Your task to perform on an android device: Open Chrome and go to the settings page Image 0: 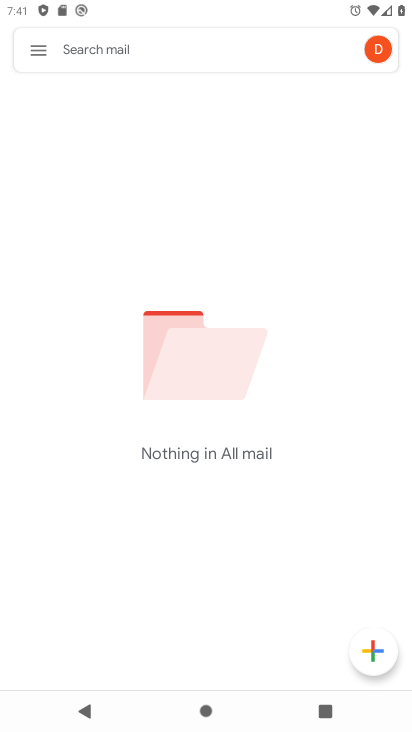
Step 0: press home button
Your task to perform on an android device: Open Chrome and go to the settings page Image 1: 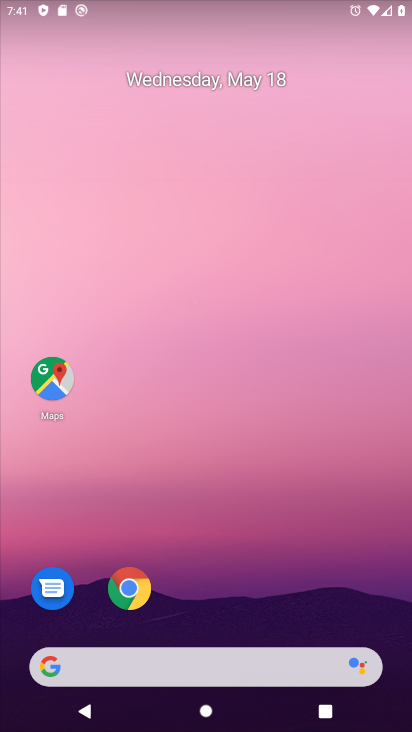
Step 1: click (132, 584)
Your task to perform on an android device: Open Chrome and go to the settings page Image 2: 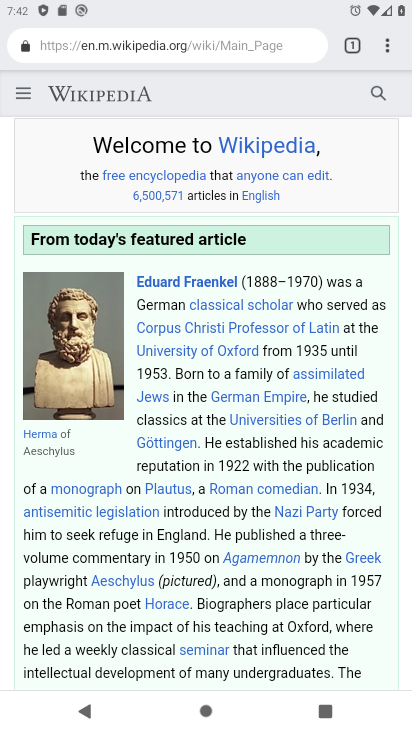
Step 2: click (387, 42)
Your task to perform on an android device: Open Chrome and go to the settings page Image 3: 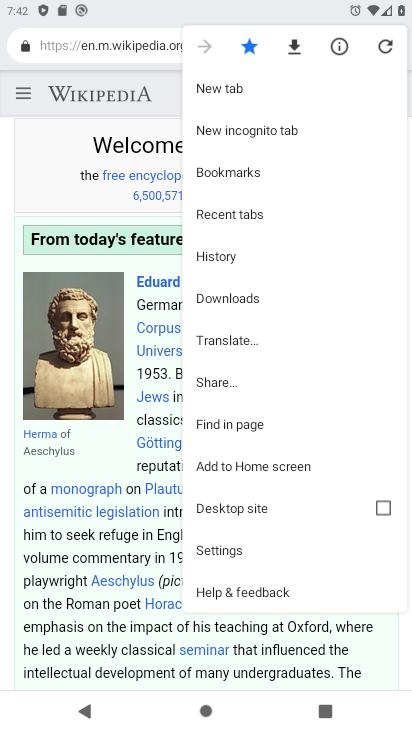
Step 3: click (244, 550)
Your task to perform on an android device: Open Chrome and go to the settings page Image 4: 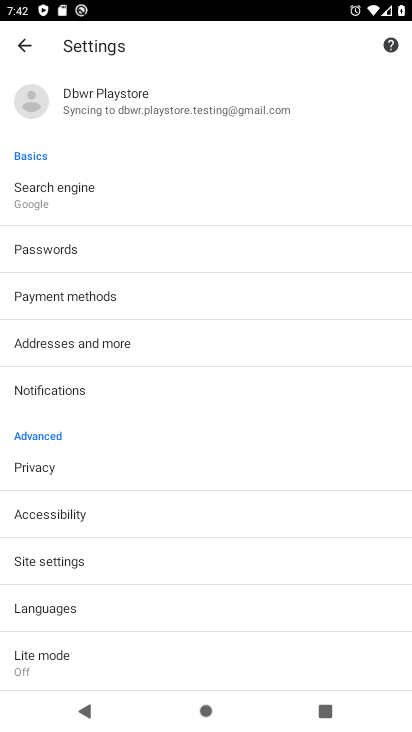
Step 4: task complete